Your task to perform on an android device: check storage Image 0: 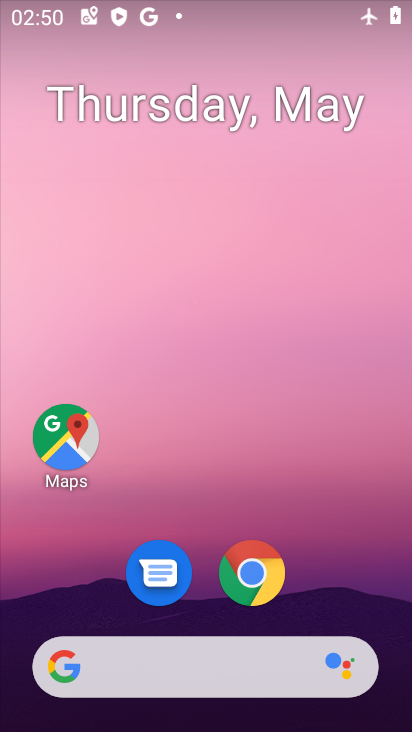
Step 0: drag from (310, 492) to (318, 340)
Your task to perform on an android device: check storage Image 1: 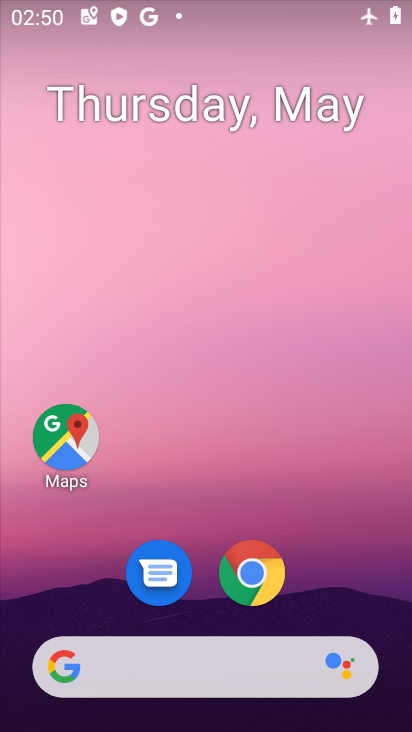
Step 1: drag from (335, 572) to (354, 149)
Your task to perform on an android device: check storage Image 2: 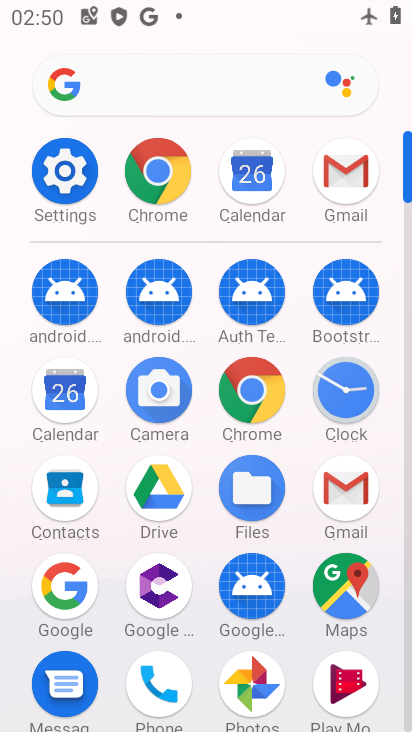
Step 2: click (56, 183)
Your task to perform on an android device: check storage Image 3: 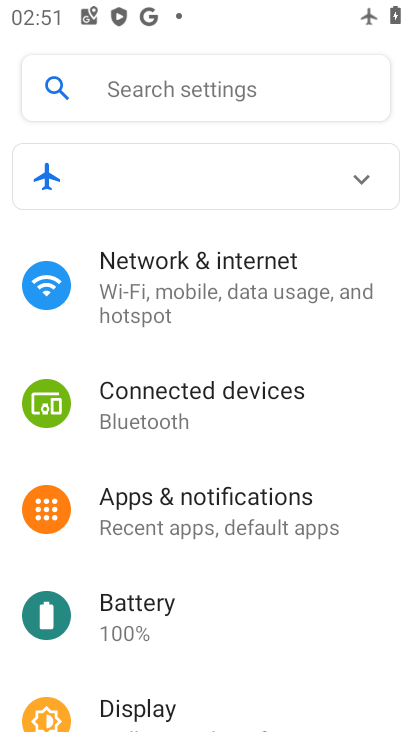
Step 3: drag from (231, 542) to (245, 291)
Your task to perform on an android device: check storage Image 4: 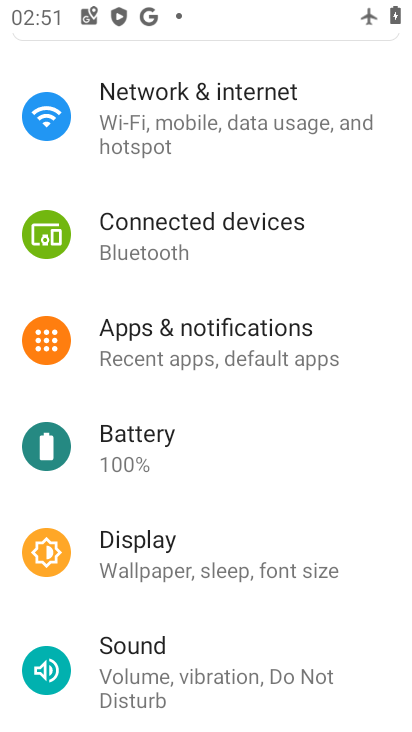
Step 4: drag from (223, 629) to (243, 304)
Your task to perform on an android device: check storage Image 5: 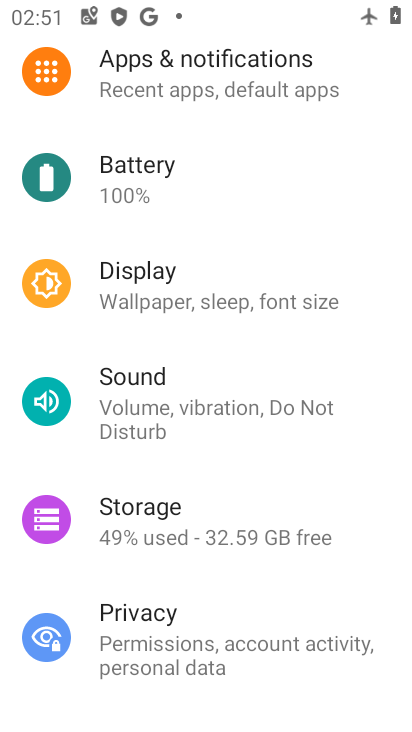
Step 5: click (194, 522)
Your task to perform on an android device: check storage Image 6: 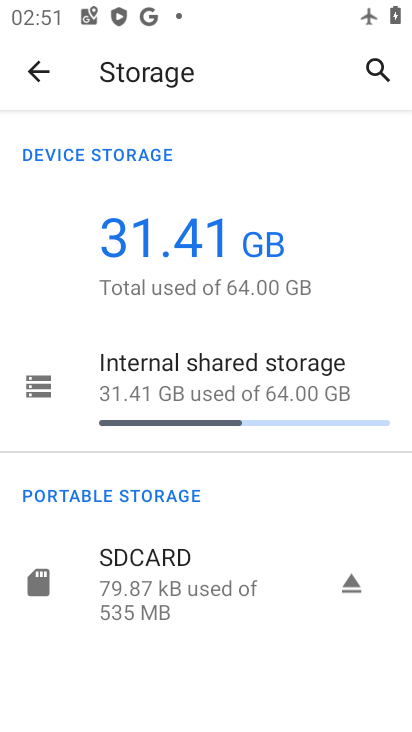
Step 6: task complete